Your task to perform on an android device: turn on translation in the chrome app Image 0: 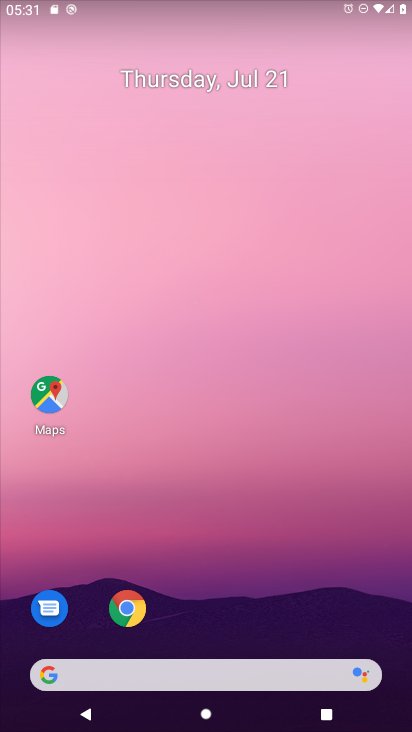
Step 0: drag from (248, 604) to (251, 51)
Your task to perform on an android device: turn on translation in the chrome app Image 1: 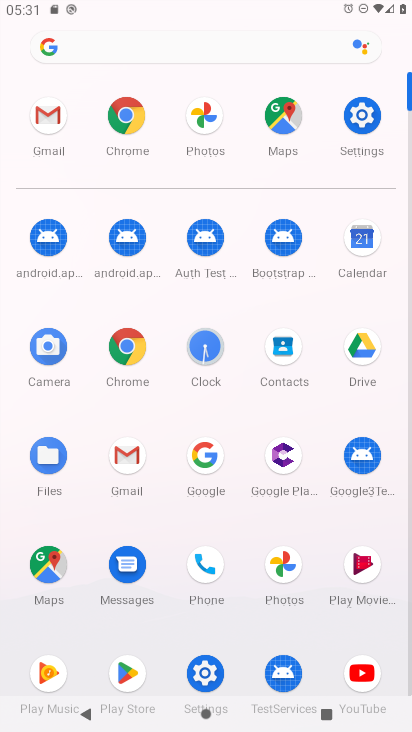
Step 1: click (136, 355)
Your task to perform on an android device: turn on translation in the chrome app Image 2: 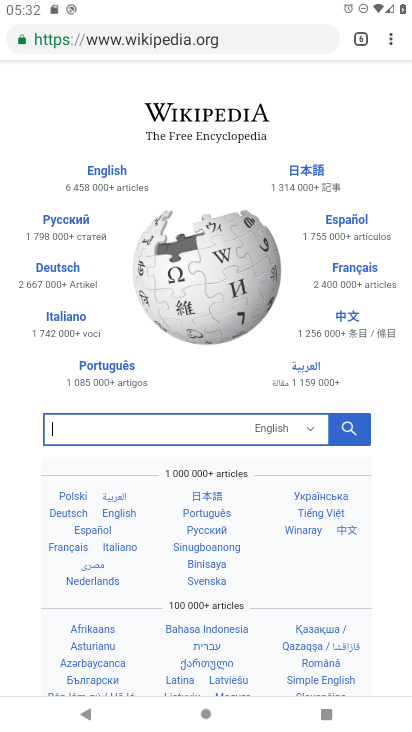
Step 2: drag from (396, 42) to (268, 474)
Your task to perform on an android device: turn on translation in the chrome app Image 3: 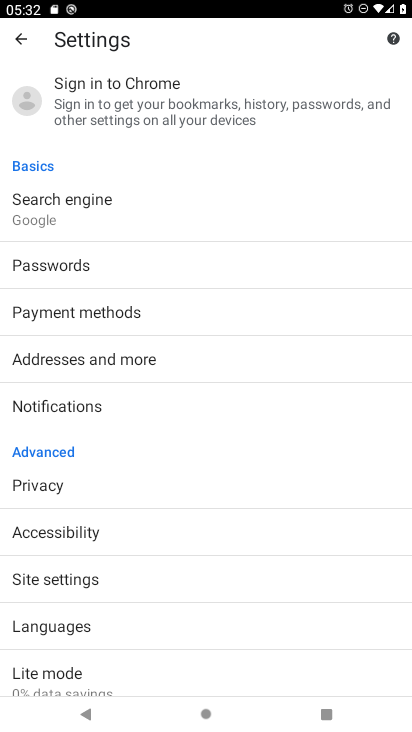
Step 3: click (98, 592)
Your task to perform on an android device: turn on translation in the chrome app Image 4: 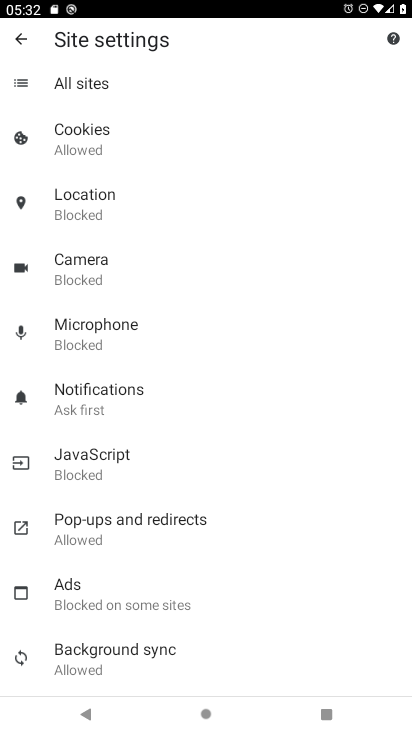
Step 4: press back button
Your task to perform on an android device: turn on translation in the chrome app Image 5: 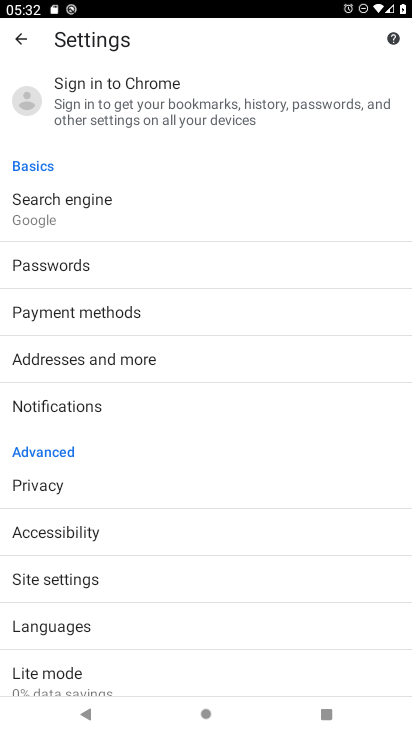
Step 5: click (77, 635)
Your task to perform on an android device: turn on translation in the chrome app Image 6: 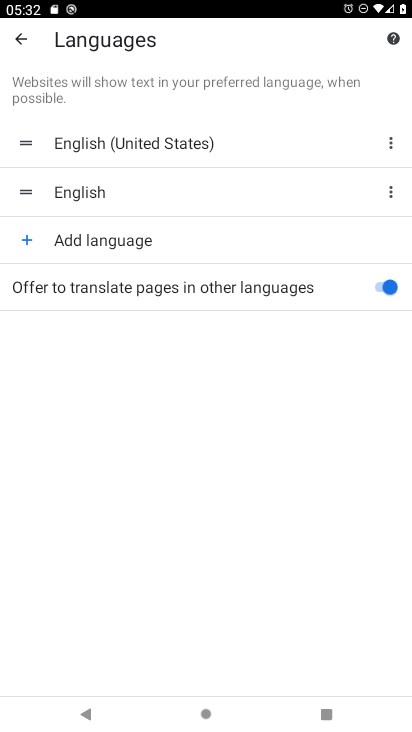
Step 6: task complete